Your task to perform on an android device: star an email in the gmail app Image 0: 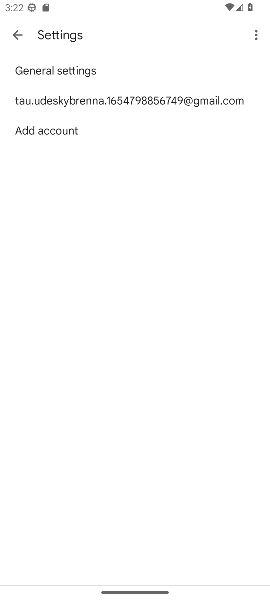
Step 0: press home button
Your task to perform on an android device: star an email in the gmail app Image 1: 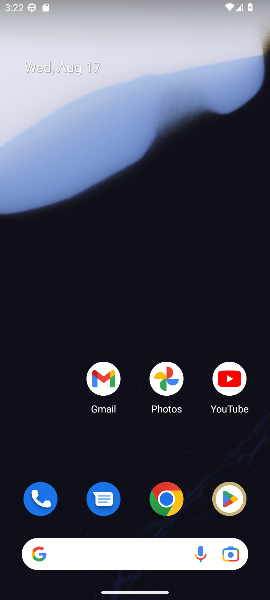
Step 1: drag from (135, 441) to (224, 25)
Your task to perform on an android device: star an email in the gmail app Image 2: 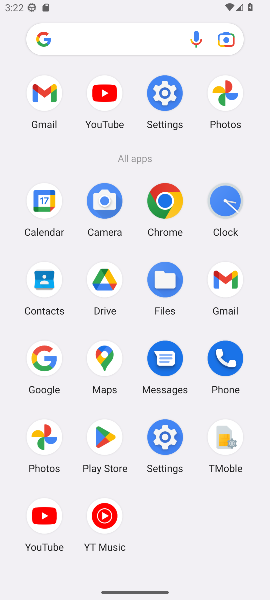
Step 2: click (221, 279)
Your task to perform on an android device: star an email in the gmail app Image 3: 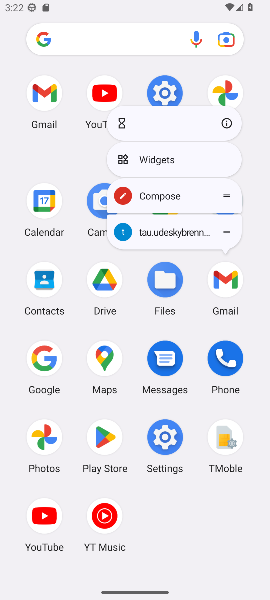
Step 3: click (221, 279)
Your task to perform on an android device: star an email in the gmail app Image 4: 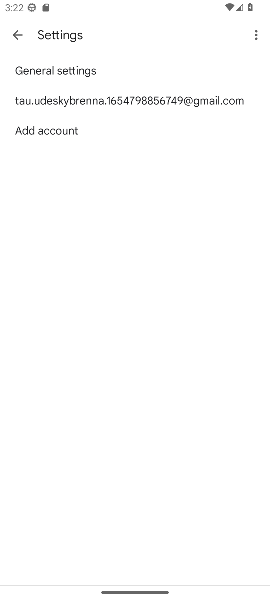
Step 4: click (21, 30)
Your task to perform on an android device: star an email in the gmail app Image 5: 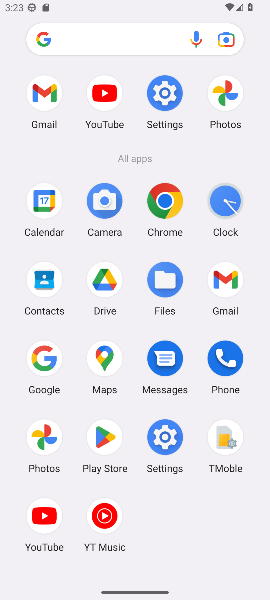
Step 5: click (226, 271)
Your task to perform on an android device: star an email in the gmail app Image 6: 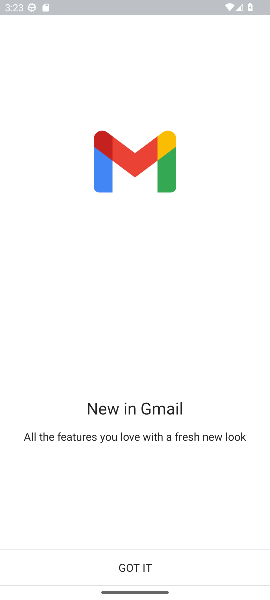
Step 6: click (145, 565)
Your task to perform on an android device: star an email in the gmail app Image 7: 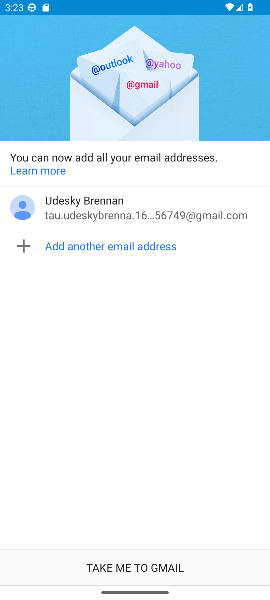
Step 7: click (127, 565)
Your task to perform on an android device: star an email in the gmail app Image 8: 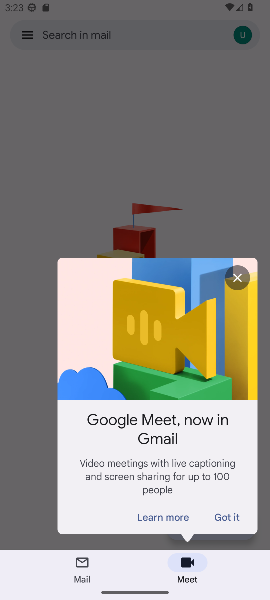
Step 8: click (226, 515)
Your task to perform on an android device: star an email in the gmail app Image 9: 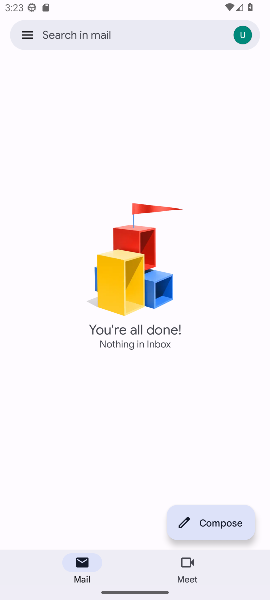
Step 9: click (29, 32)
Your task to perform on an android device: star an email in the gmail app Image 10: 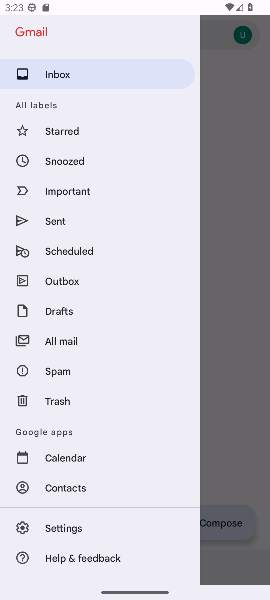
Step 10: click (65, 132)
Your task to perform on an android device: star an email in the gmail app Image 11: 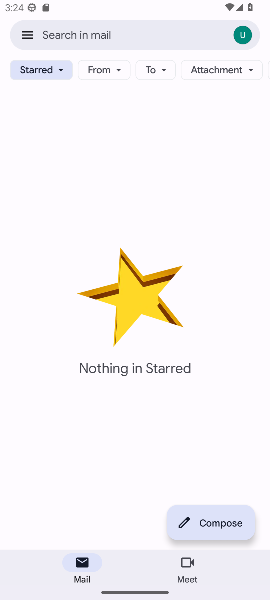
Step 11: task complete